Your task to perform on an android device: Open the calendar app, open the side menu, and click the "Day" option Image 0: 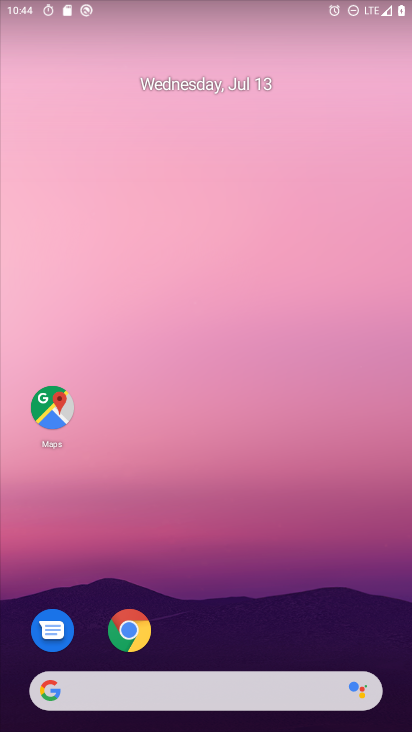
Step 0: click (216, 12)
Your task to perform on an android device: Open the calendar app, open the side menu, and click the "Day" option Image 1: 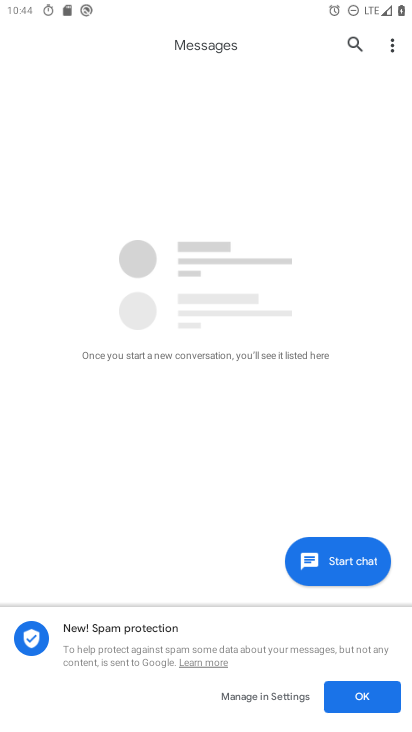
Step 1: press home button
Your task to perform on an android device: Open the calendar app, open the side menu, and click the "Day" option Image 2: 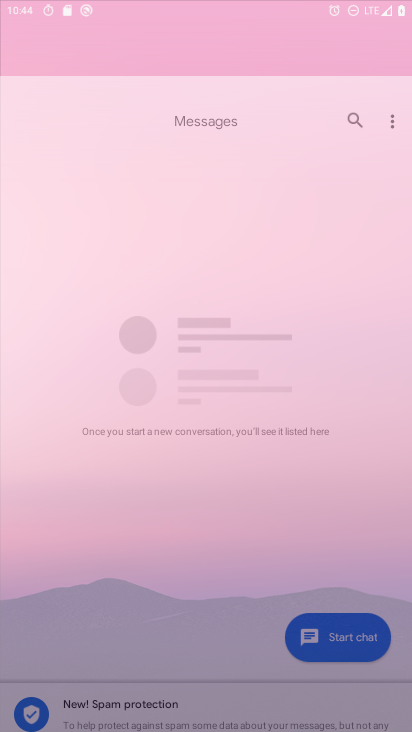
Step 2: drag from (379, 665) to (201, 6)
Your task to perform on an android device: Open the calendar app, open the side menu, and click the "Day" option Image 3: 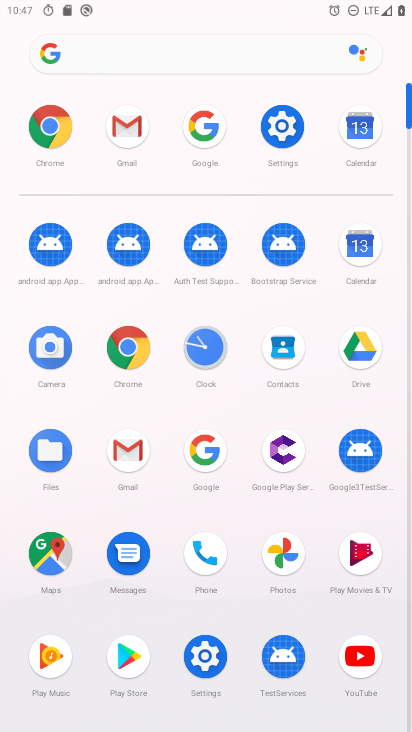
Step 3: click (351, 258)
Your task to perform on an android device: Open the calendar app, open the side menu, and click the "Day" option Image 4: 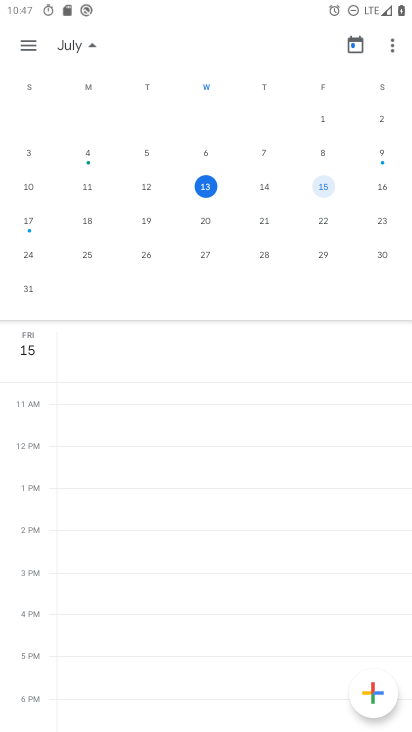
Step 4: click (29, 45)
Your task to perform on an android device: Open the calendar app, open the side menu, and click the "Day" option Image 5: 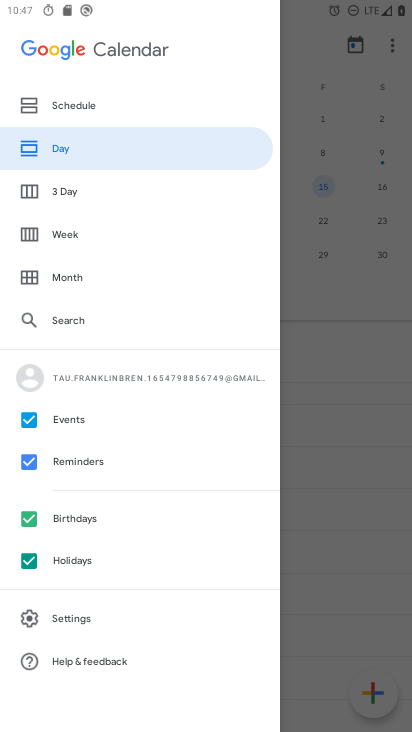
Step 5: click (123, 144)
Your task to perform on an android device: Open the calendar app, open the side menu, and click the "Day" option Image 6: 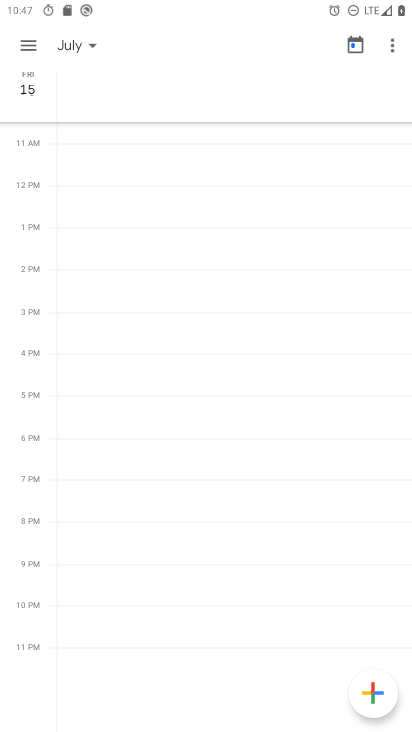
Step 6: task complete